Your task to perform on an android device: Open Google Chrome Image 0: 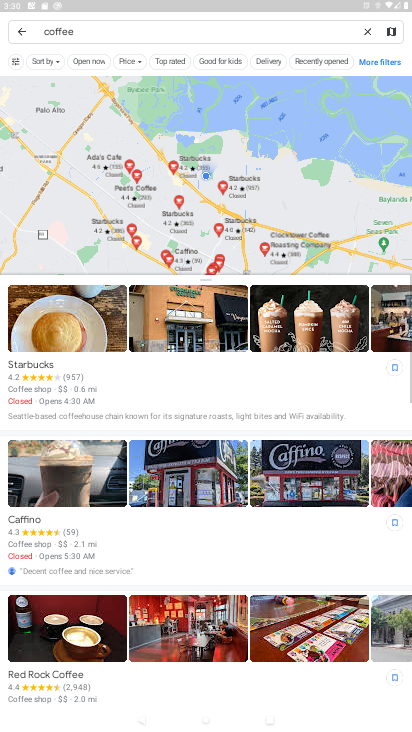
Step 0: press home button
Your task to perform on an android device: Open Google Chrome Image 1: 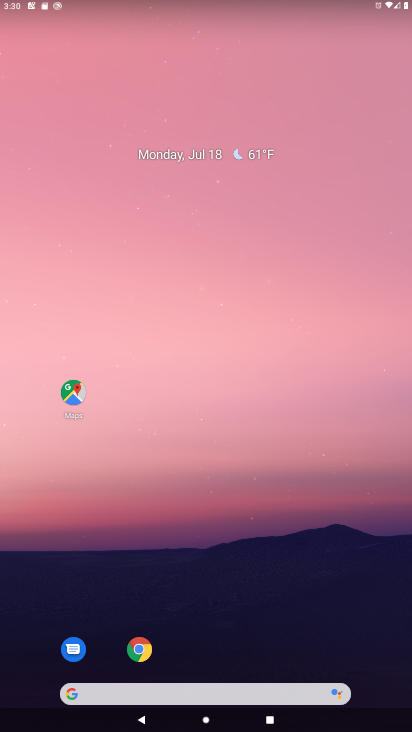
Step 1: click (140, 648)
Your task to perform on an android device: Open Google Chrome Image 2: 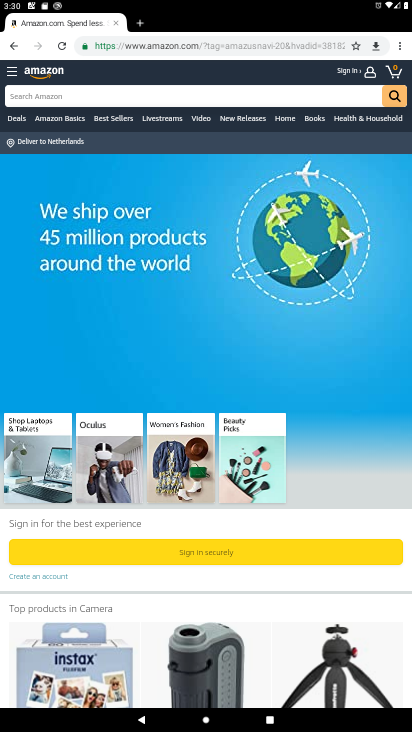
Step 2: task complete